Your task to perform on an android device: Go to privacy settings Image 0: 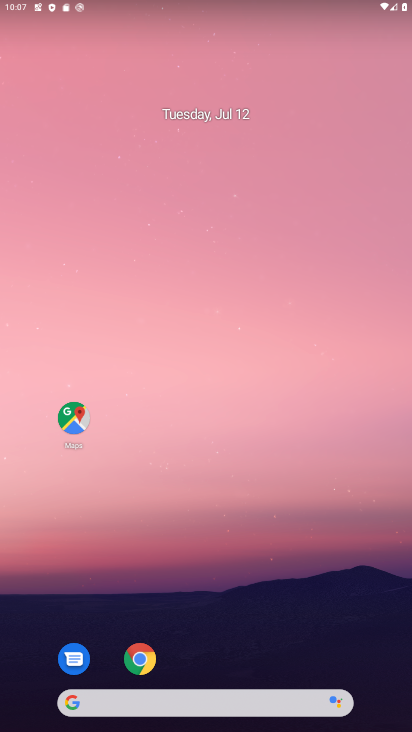
Step 0: drag from (387, 588) to (343, 167)
Your task to perform on an android device: Go to privacy settings Image 1: 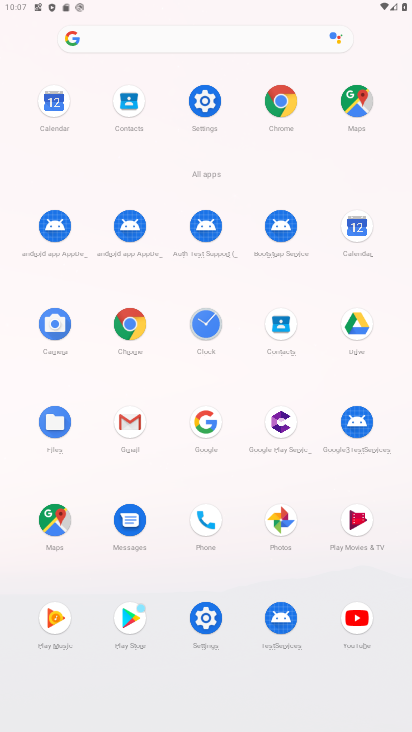
Step 1: click (203, 103)
Your task to perform on an android device: Go to privacy settings Image 2: 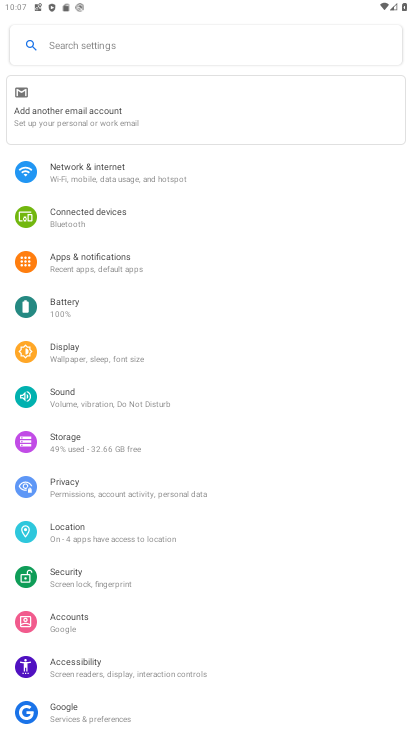
Step 2: click (51, 481)
Your task to perform on an android device: Go to privacy settings Image 3: 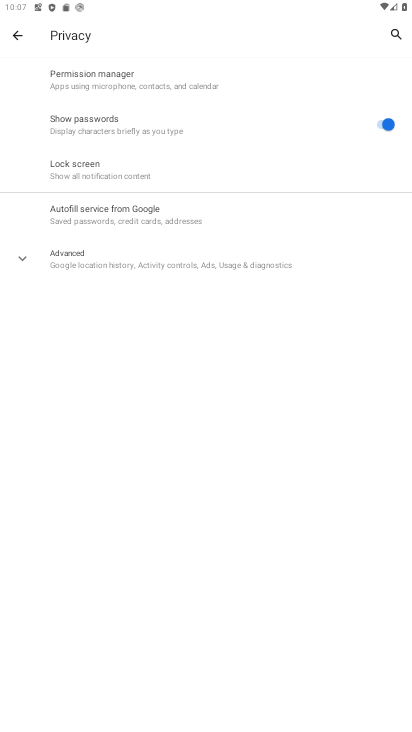
Step 3: click (18, 253)
Your task to perform on an android device: Go to privacy settings Image 4: 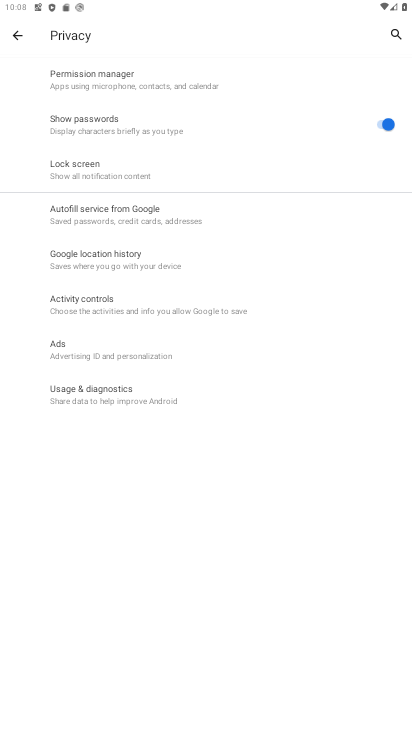
Step 4: task complete